Your task to perform on an android device: What is the news today? Image 0: 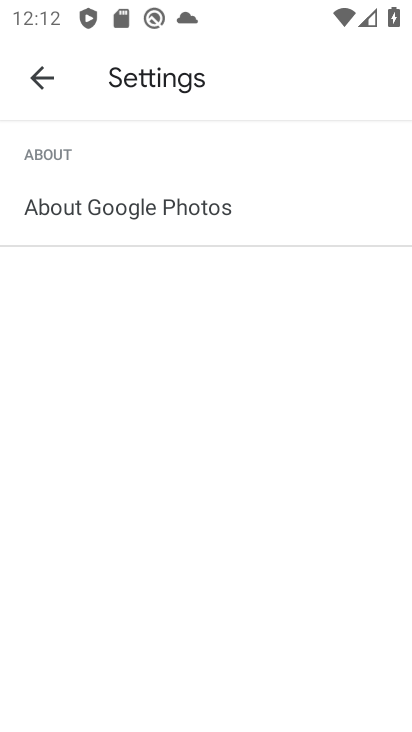
Step 0: press home button
Your task to perform on an android device: What is the news today? Image 1: 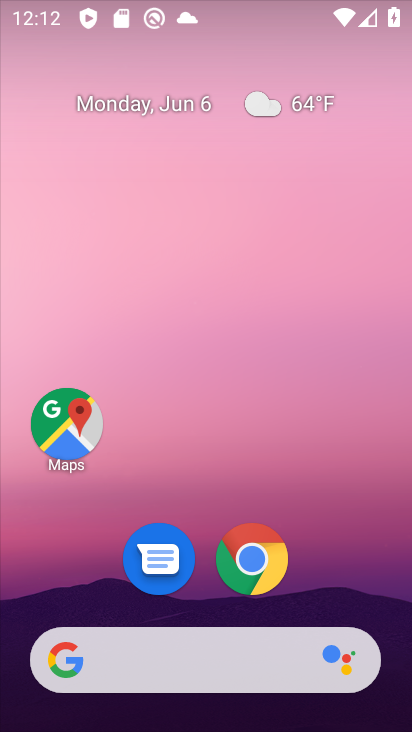
Step 1: drag from (233, 691) to (212, 230)
Your task to perform on an android device: What is the news today? Image 2: 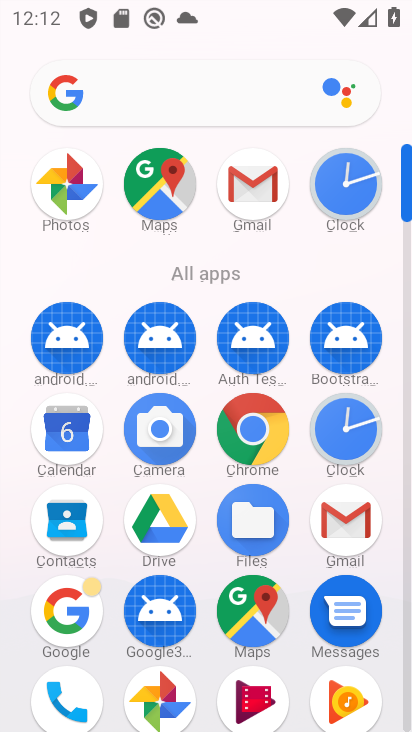
Step 2: click (182, 109)
Your task to perform on an android device: What is the news today? Image 3: 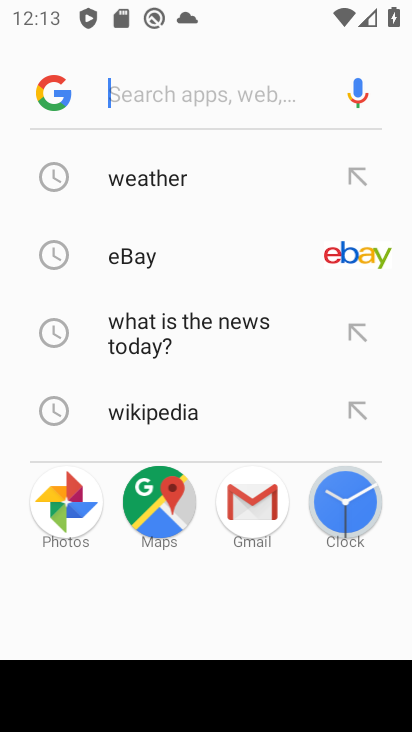
Step 3: click (210, 334)
Your task to perform on an android device: What is the news today? Image 4: 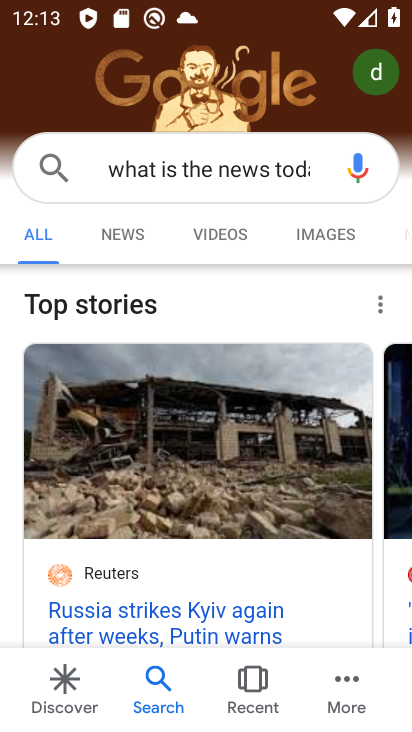
Step 4: task complete